Your task to perform on an android device: Open display settings Image 0: 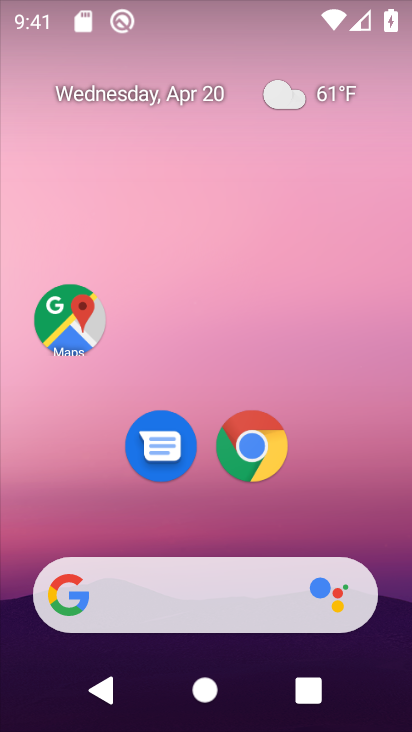
Step 0: drag from (343, 537) to (349, 103)
Your task to perform on an android device: Open display settings Image 1: 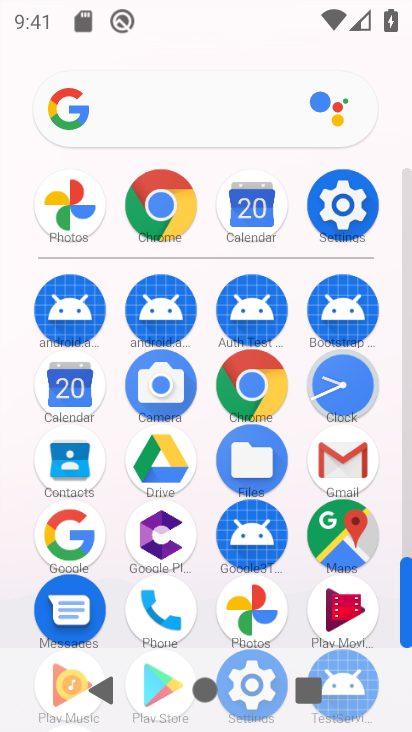
Step 1: click (339, 221)
Your task to perform on an android device: Open display settings Image 2: 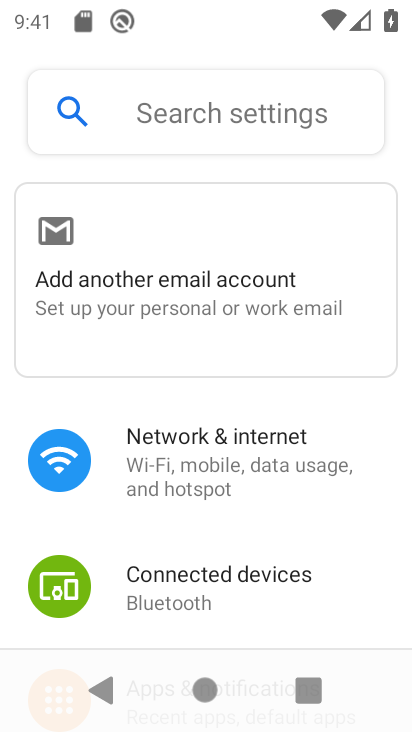
Step 2: drag from (298, 595) to (294, 257)
Your task to perform on an android device: Open display settings Image 3: 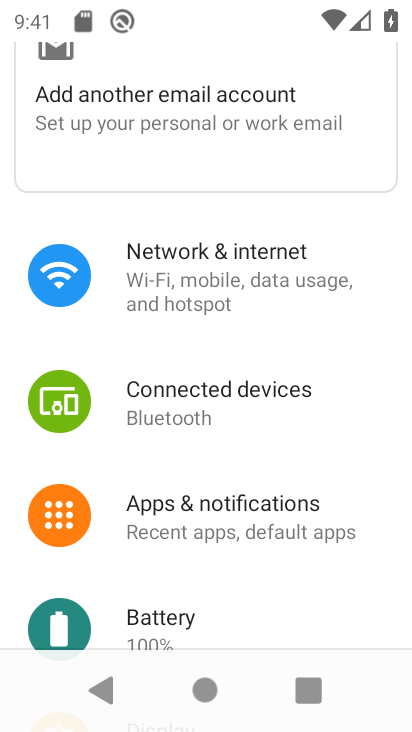
Step 3: drag from (293, 573) to (295, 274)
Your task to perform on an android device: Open display settings Image 4: 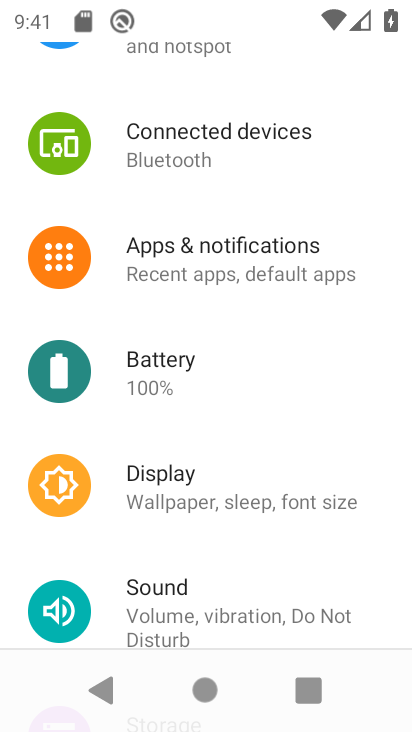
Step 4: click (211, 500)
Your task to perform on an android device: Open display settings Image 5: 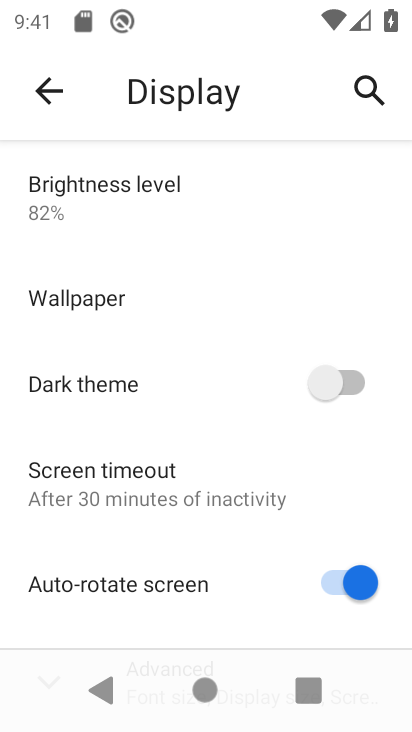
Step 5: task complete